Your task to perform on an android device: Go to settings Image 0: 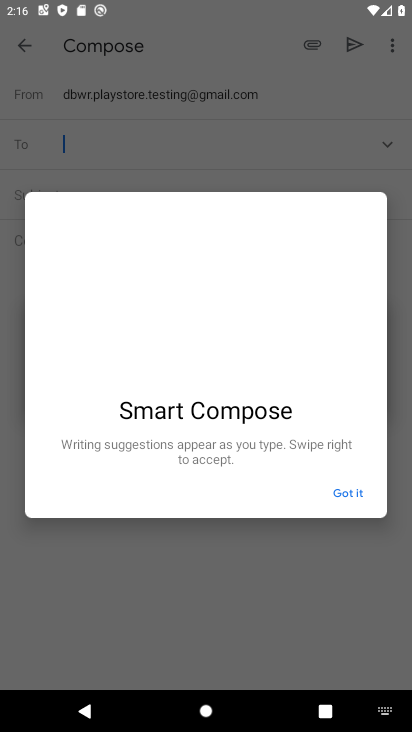
Step 0: press home button
Your task to perform on an android device: Go to settings Image 1: 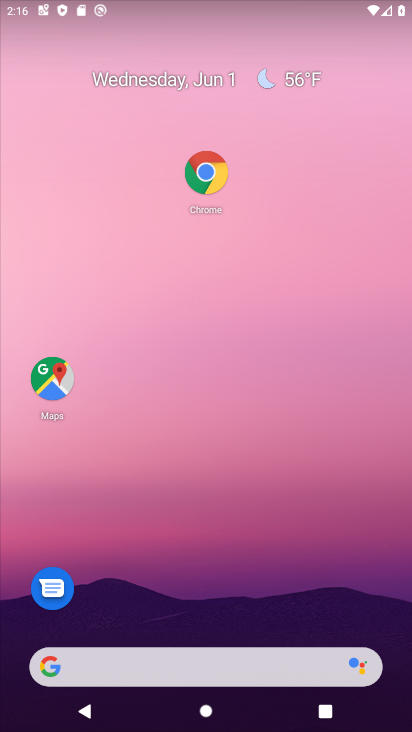
Step 1: drag from (226, 533) to (221, 87)
Your task to perform on an android device: Go to settings Image 2: 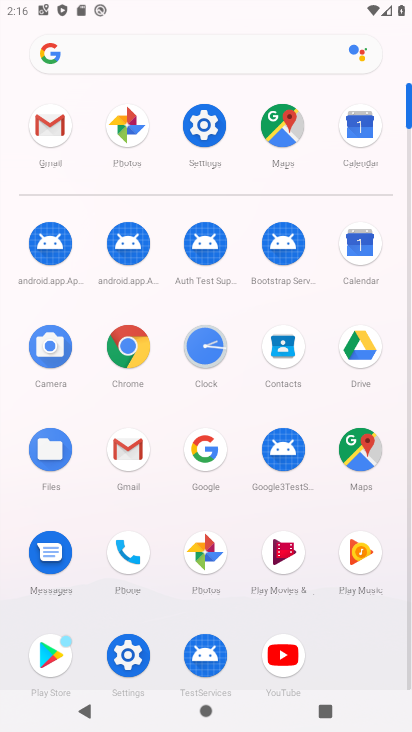
Step 2: click (201, 124)
Your task to perform on an android device: Go to settings Image 3: 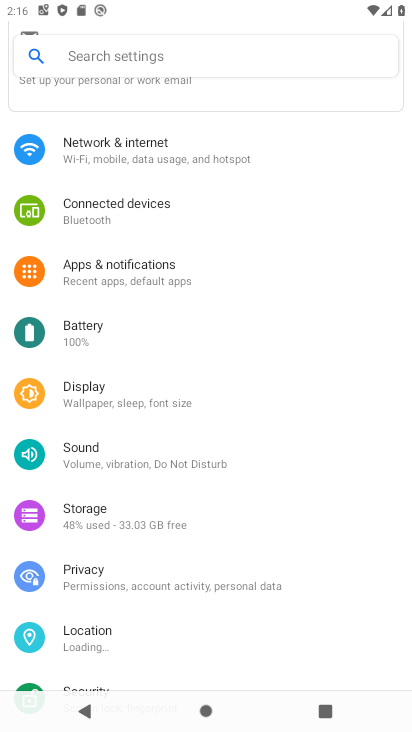
Step 3: task complete